Your task to perform on an android device: Toggle the flashlight Image 0: 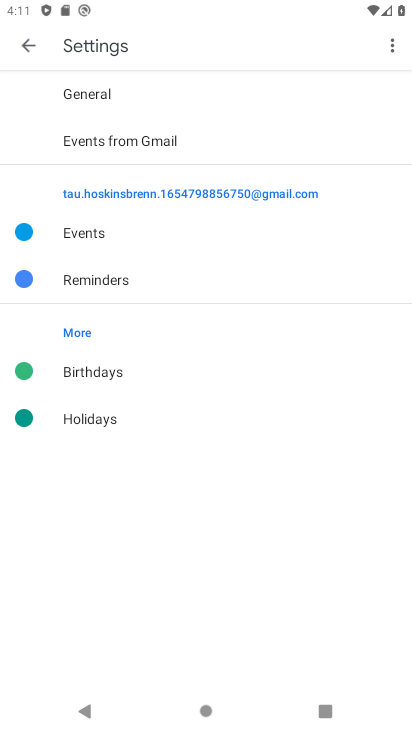
Step 0: press back button
Your task to perform on an android device: Toggle the flashlight Image 1: 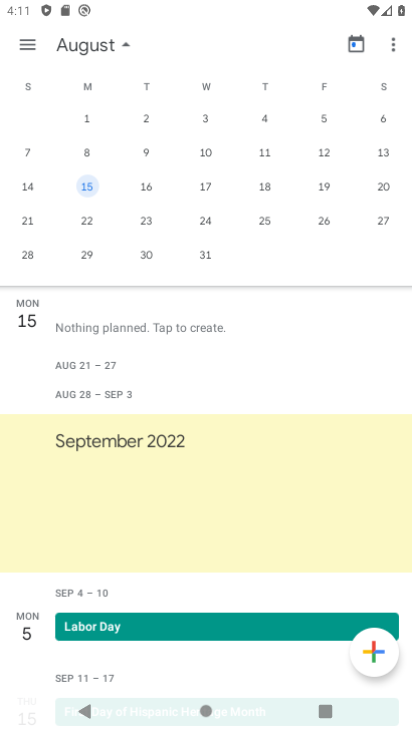
Step 1: task complete